Your task to perform on an android device: install app "Booking.com: Hotels and more" Image 0: 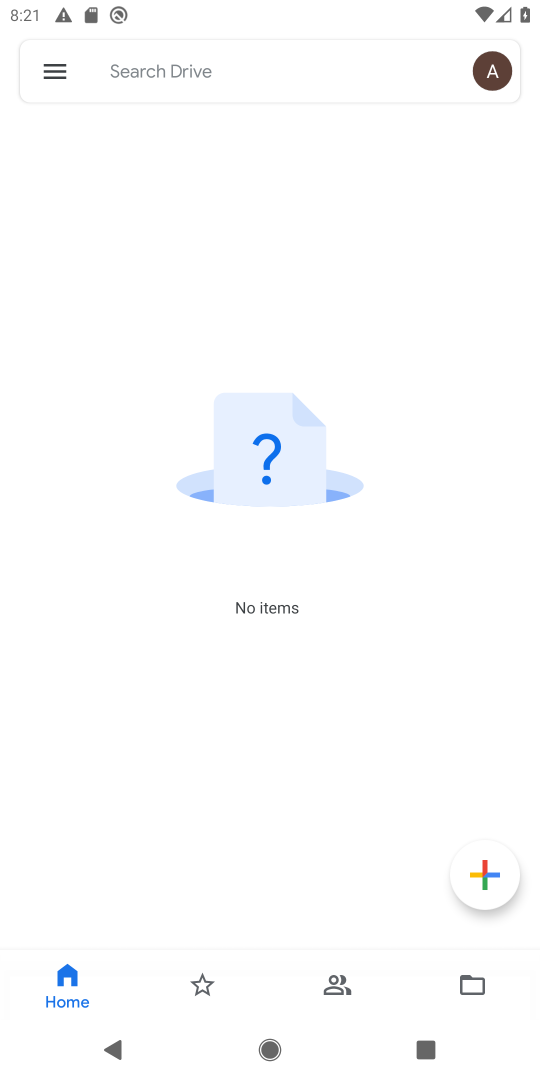
Step 0: press back button
Your task to perform on an android device: install app "Booking.com: Hotels and more" Image 1: 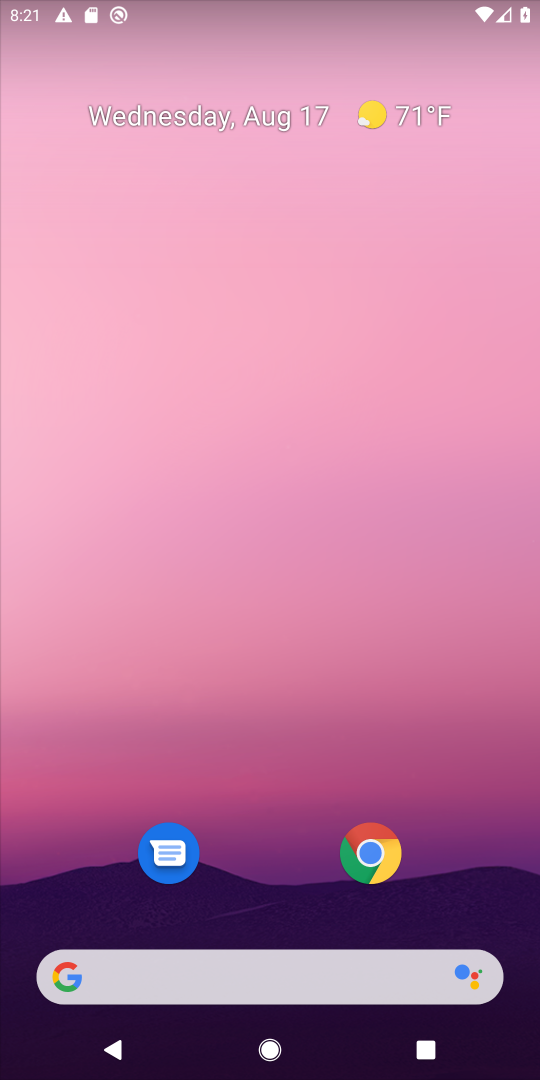
Step 1: drag from (261, 799) to (319, 176)
Your task to perform on an android device: install app "Booking.com: Hotels and more" Image 2: 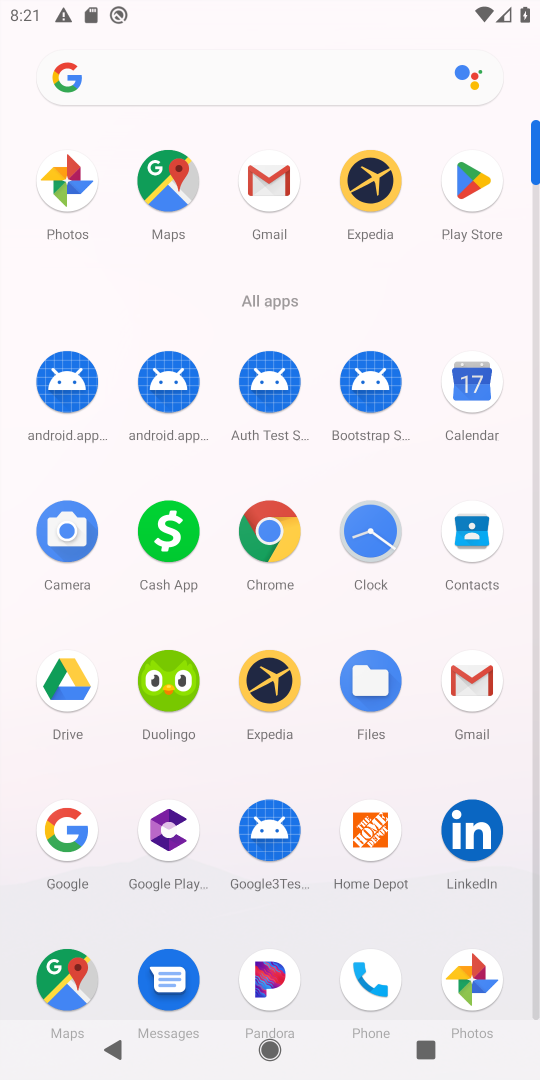
Step 2: click (467, 195)
Your task to perform on an android device: install app "Booking.com: Hotels and more" Image 3: 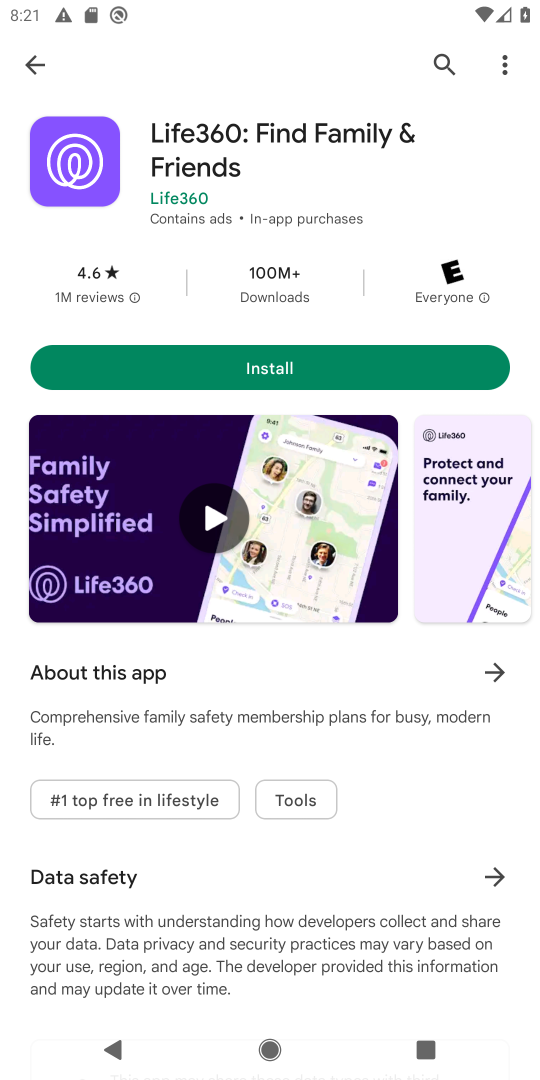
Step 3: click (440, 70)
Your task to perform on an android device: install app "Booking.com: Hotels and more" Image 4: 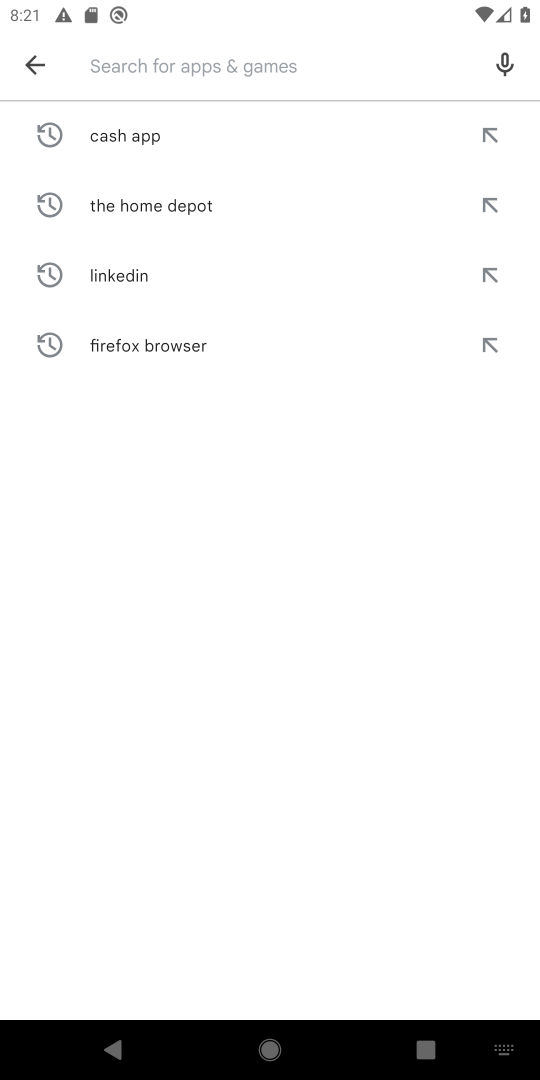
Step 4: type "Booking.com: Hotels and more"
Your task to perform on an android device: install app "Booking.com: Hotels and more" Image 5: 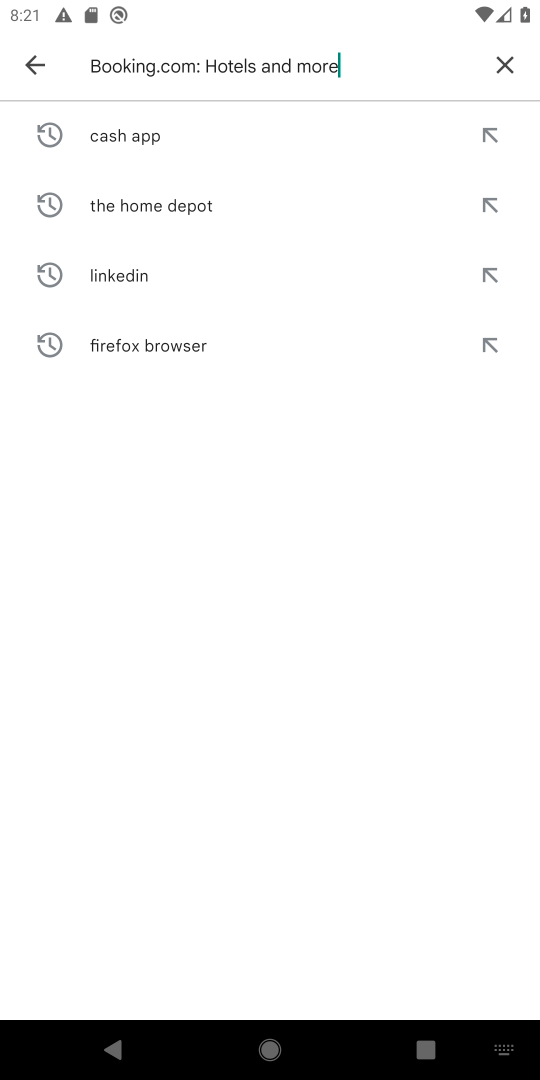
Step 5: type ""
Your task to perform on an android device: install app "Booking.com: Hotels and more" Image 6: 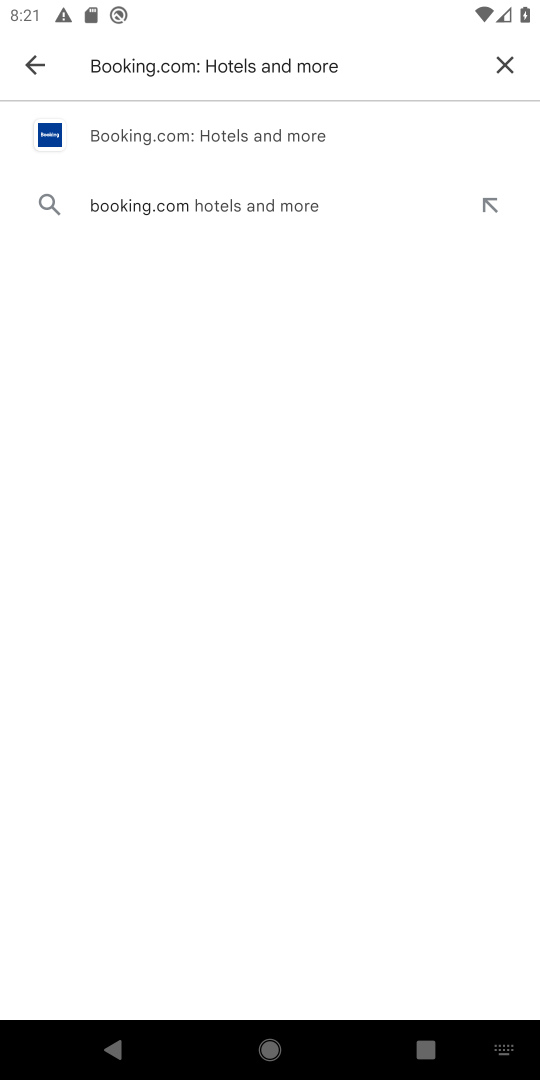
Step 6: click (126, 135)
Your task to perform on an android device: install app "Booking.com: Hotels and more" Image 7: 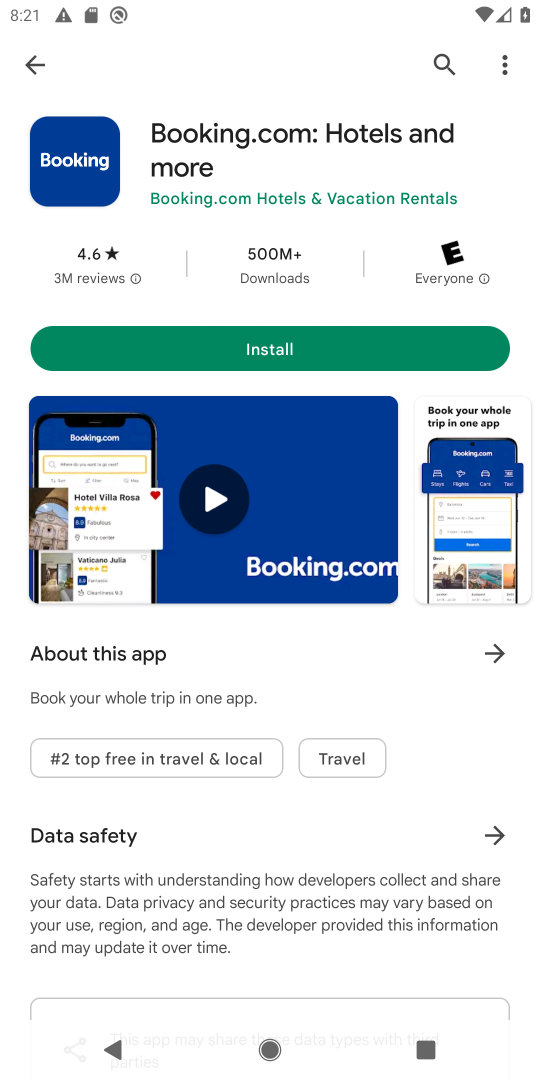
Step 7: click (349, 339)
Your task to perform on an android device: install app "Booking.com: Hotels and more" Image 8: 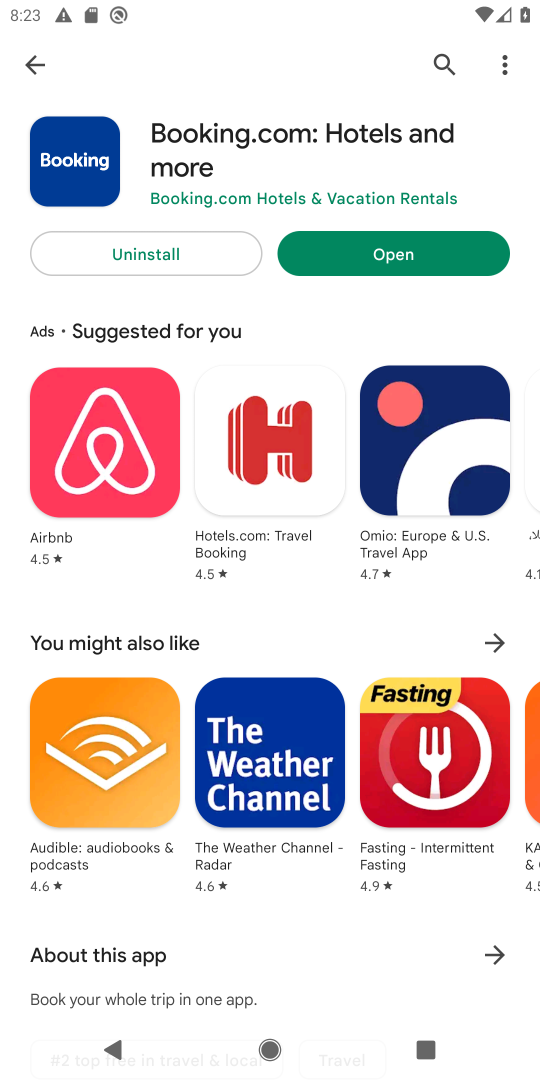
Step 8: task complete